Your task to perform on an android device: Open Chrome and go to settings Image 0: 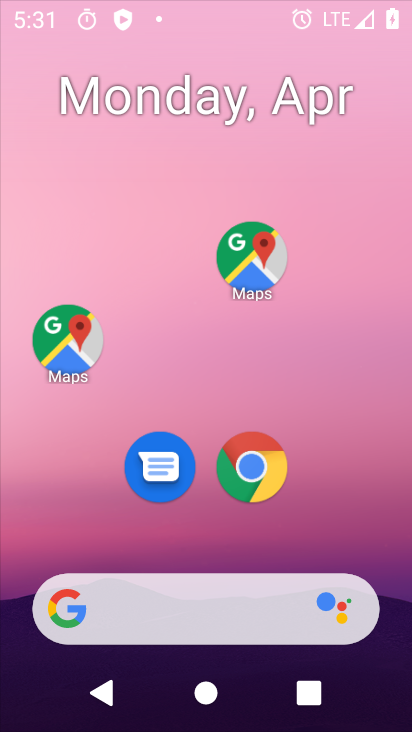
Step 0: drag from (300, 332) to (112, 11)
Your task to perform on an android device: Open Chrome and go to settings Image 1: 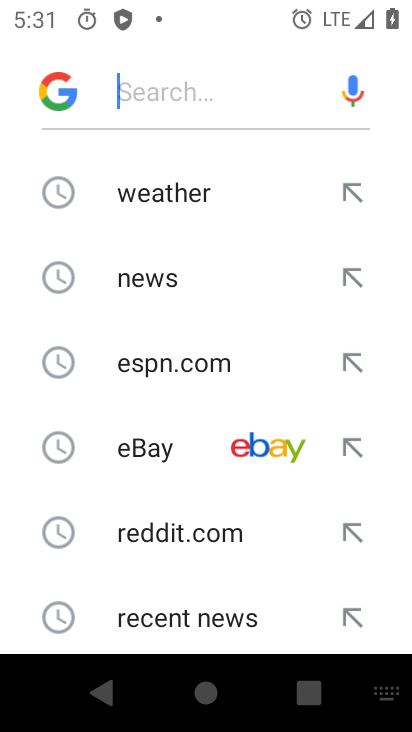
Step 1: press home button
Your task to perform on an android device: Open Chrome and go to settings Image 2: 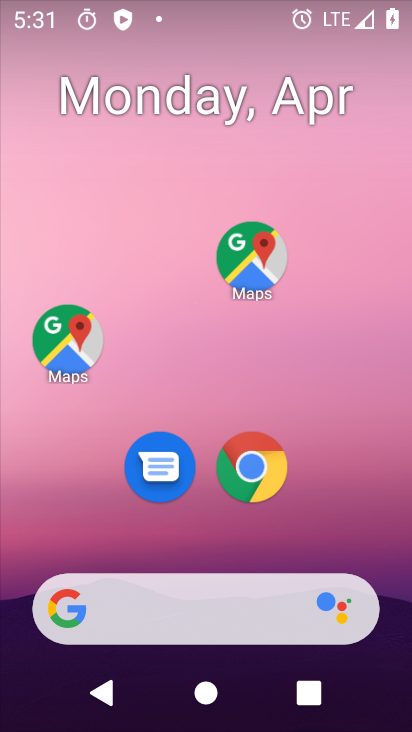
Step 2: drag from (348, 628) to (353, 6)
Your task to perform on an android device: Open Chrome and go to settings Image 3: 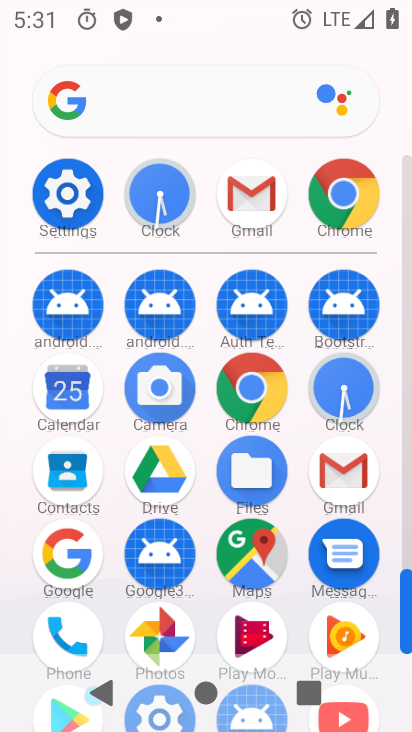
Step 3: click (245, 390)
Your task to perform on an android device: Open Chrome and go to settings Image 4: 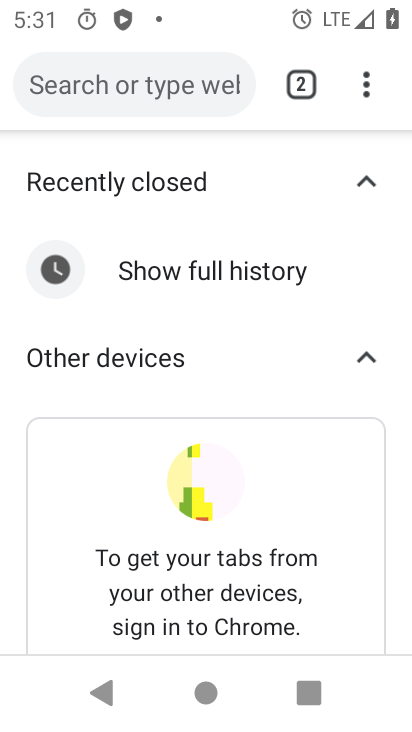
Step 4: task complete